Your task to perform on an android device: Go to accessibility settings Image 0: 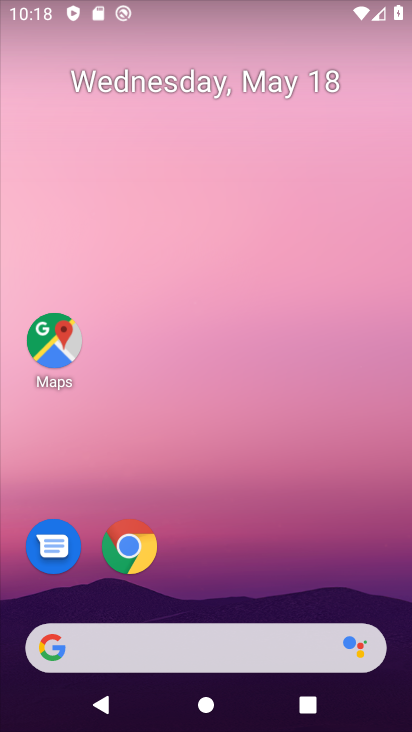
Step 0: drag from (226, 585) to (226, 192)
Your task to perform on an android device: Go to accessibility settings Image 1: 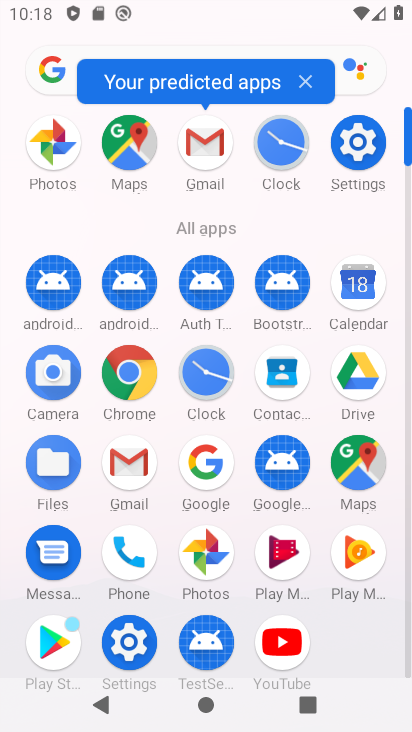
Step 1: click (358, 139)
Your task to perform on an android device: Go to accessibility settings Image 2: 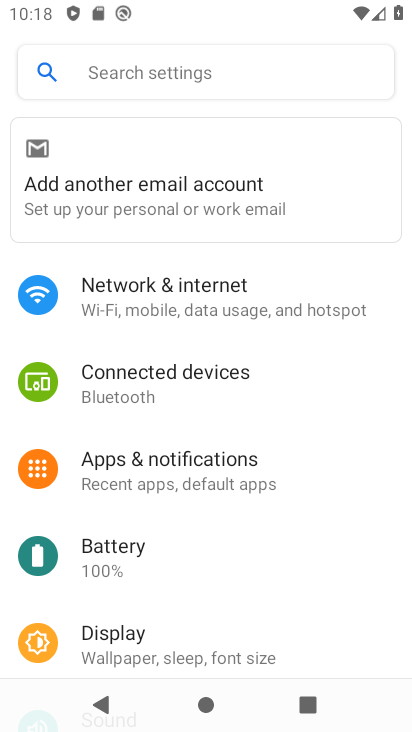
Step 2: drag from (157, 635) to (173, 258)
Your task to perform on an android device: Go to accessibility settings Image 3: 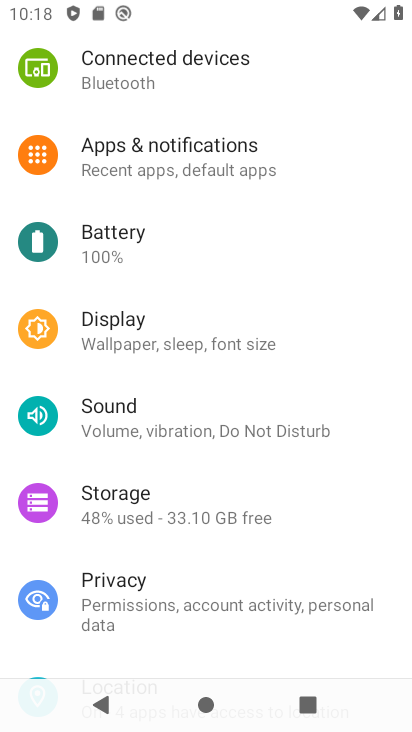
Step 3: drag from (157, 624) to (157, 273)
Your task to perform on an android device: Go to accessibility settings Image 4: 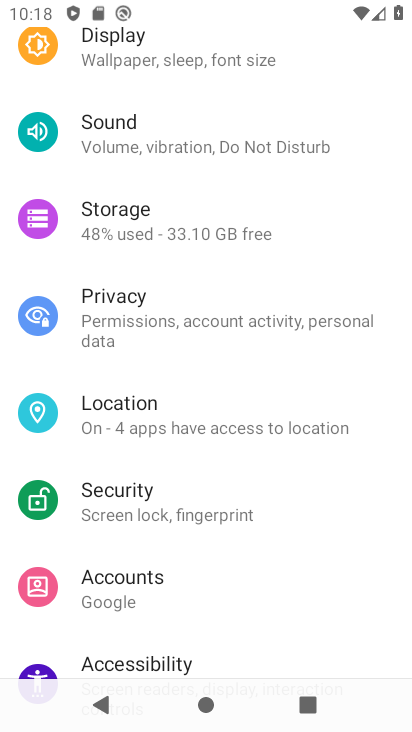
Step 4: drag from (177, 639) to (177, 310)
Your task to perform on an android device: Go to accessibility settings Image 5: 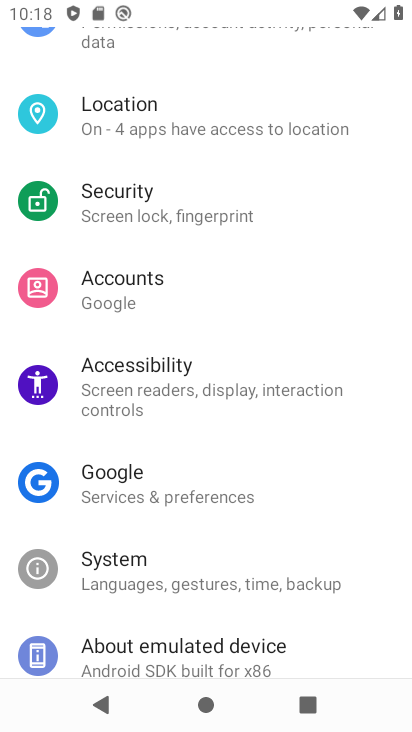
Step 5: click (136, 379)
Your task to perform on an android device: Go to accessibility settings Image 6: 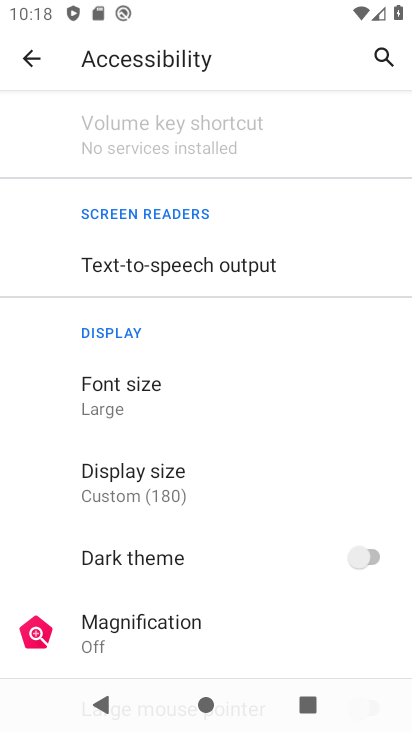
Step 6: task complete